Your task to perform on an android device: change the clock display to show seconds Image 0: 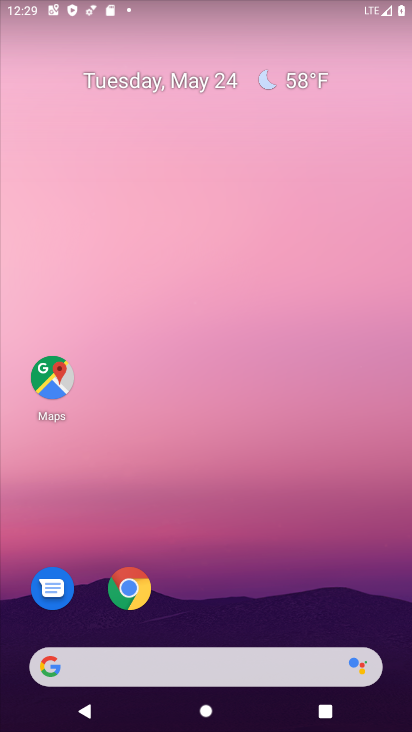
Step 0: press home button
Your task to perform on an android device: change the clock display to show seconds Image 1: 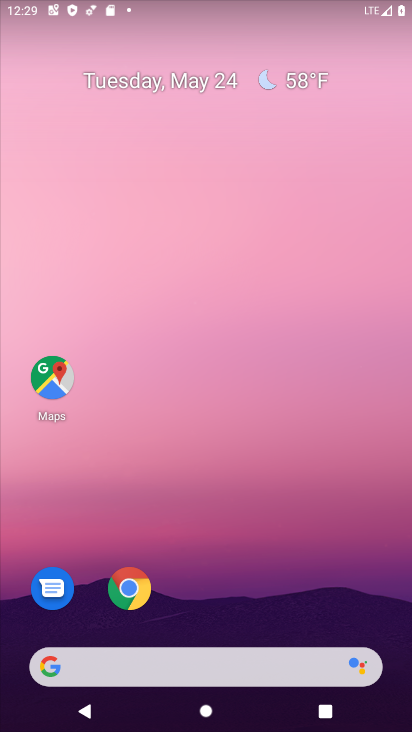
Step 1: drag from (191, 617) to (153, 138)
Your task to perform on an android device: change the clock display to show seconds Image 2: 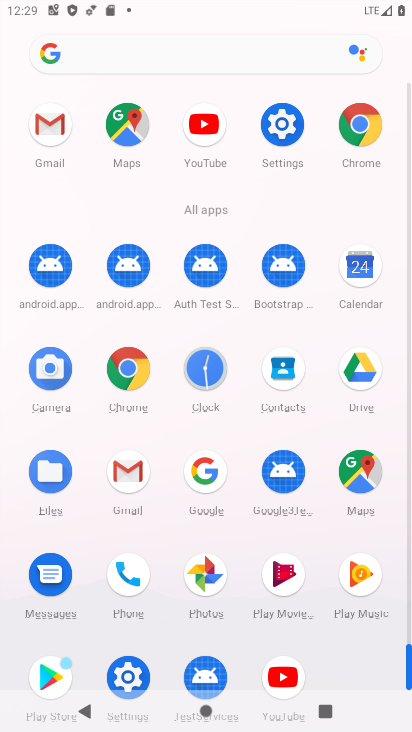
Step 2: click (212, 375)
Your task to perform on an android device: change the clock display to show seconds Image 3: 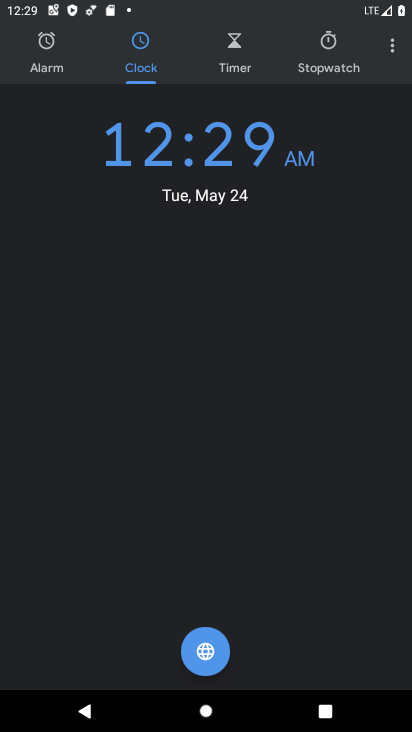
Step 3: click (400, 47)
Your task to perform on an android device: change the clock display to show seconds Image 4: 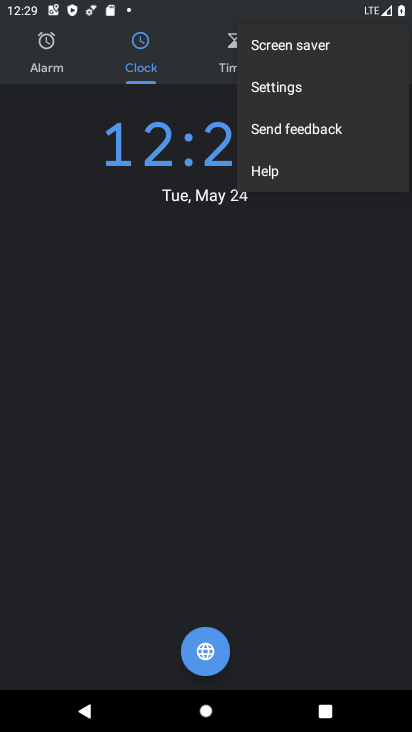
Step 4: click (279, 101)
Your task to perform on an android device: change the clock display to show seconds Image 5: 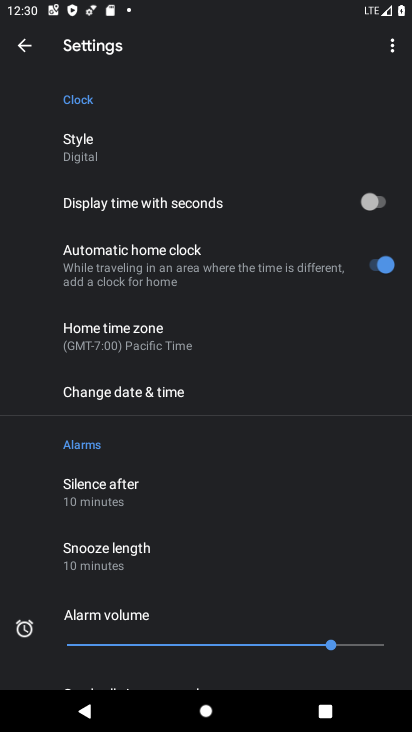
Step 5: click (390, 206)
Your task to perform on an android device: change the clock display to show seconds Image 6: 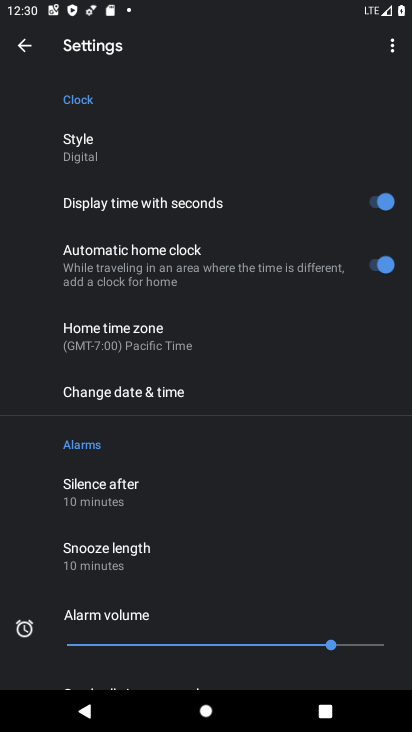
Step 6: task complete